Your task to perform on an android device: Open wifi settings Image 0: 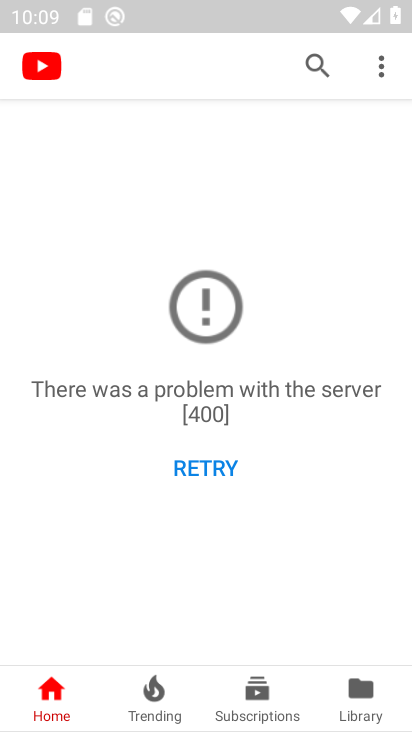
Step 0: press home button
Your task to perform on an android device: Open wifi settings Image 1: 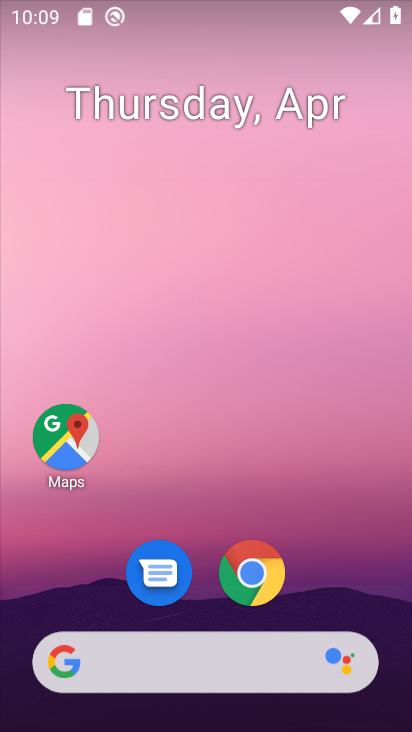
Step 1: drag from (310, 600) to (281, 175)
Your task to perform on an android device: Open wifi settings Image 2: 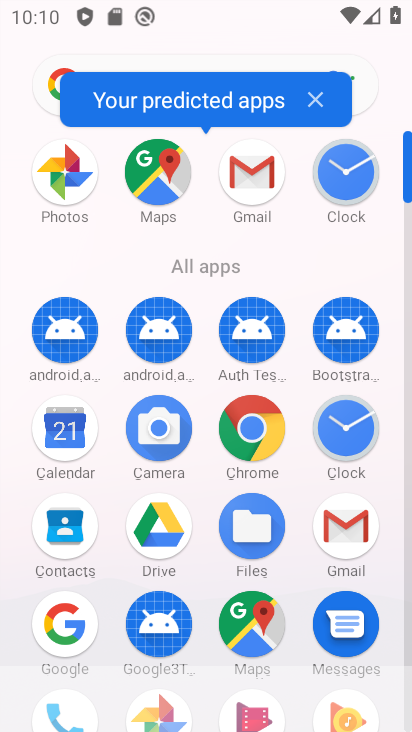
Step 2: click (409, 650)
Your task to perform on an android device: Open wifi settings Image 3: 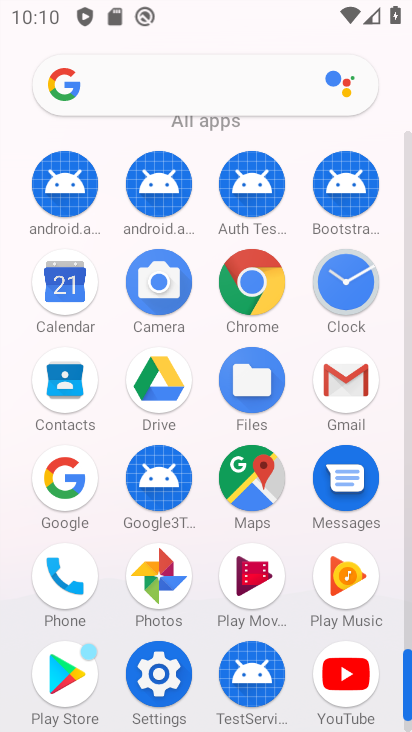
Step 3: click (157, 672)
Your task to perform on an android device: Open wifi settings Image 4: 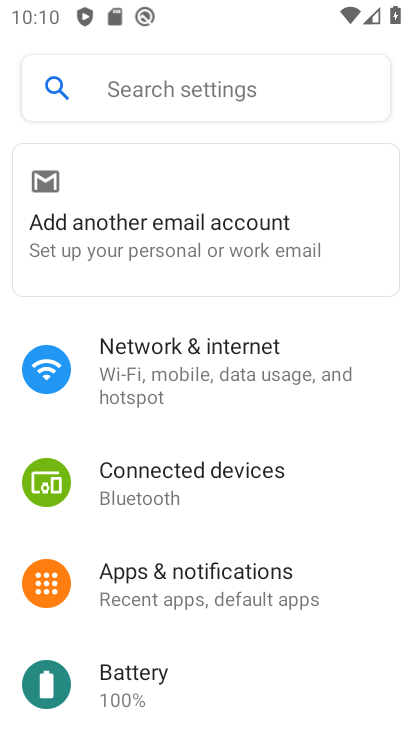
Step 4: click (154, 367)
Your task to perform on an android device: Open wifi settings Image 5: 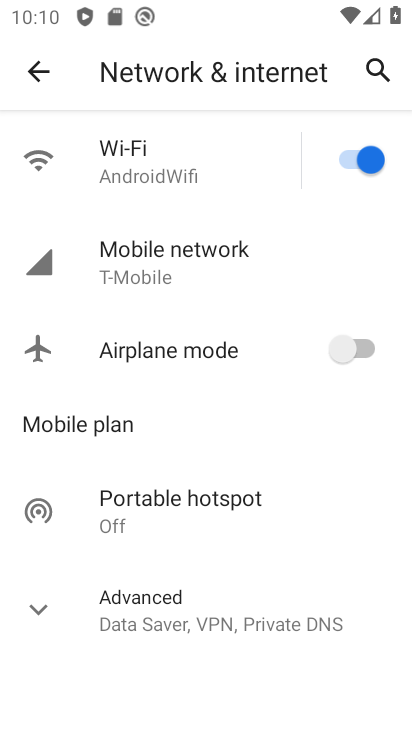
Step 5: click (178, 172)
Your task to perform on an android device: Open wifi settings Image 6: 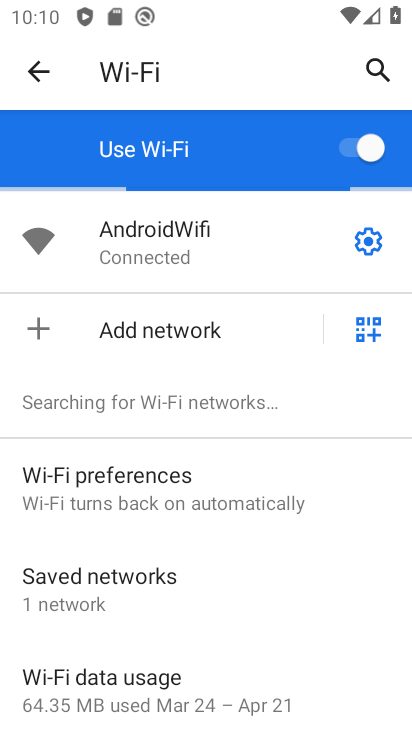
Step 6: task complete